Your task to perform on an android device: Go to Yahoo.com Image 0: 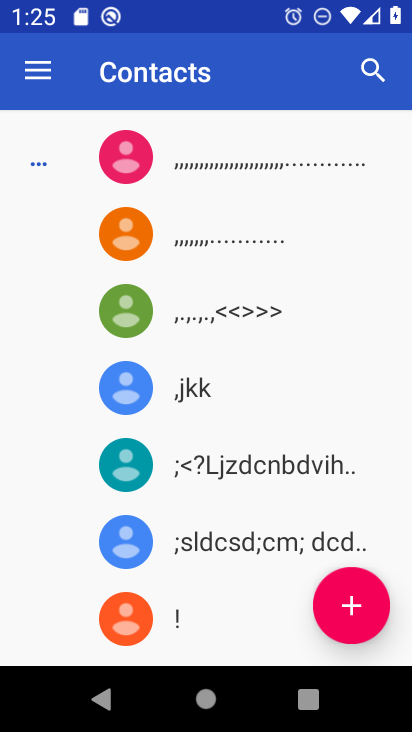
Step 0: press home button
Your task to perform on an android device: Go to Yahoo.com Image 1: 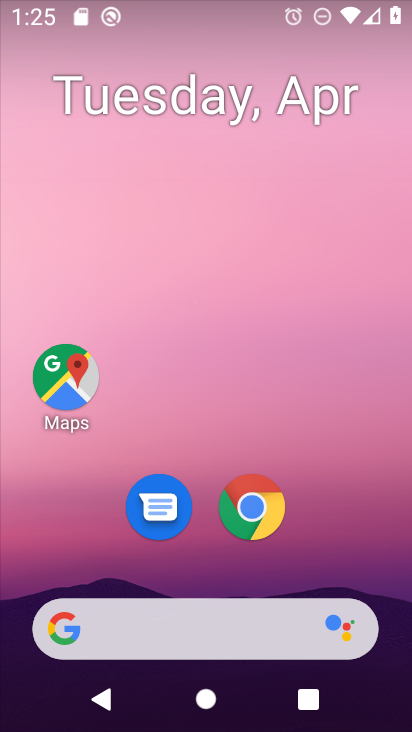
Step 1: drag from (363, 516) to (215, 141)
Your task to perform on an android device: Go to Yahoo.com Image 2: 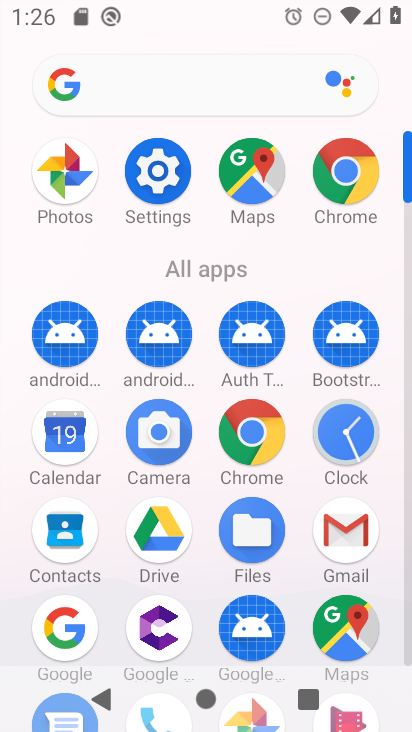
Step 2: click (325, 189)
Your task to perform on an android device: Go to Yahoo.com Image 3: 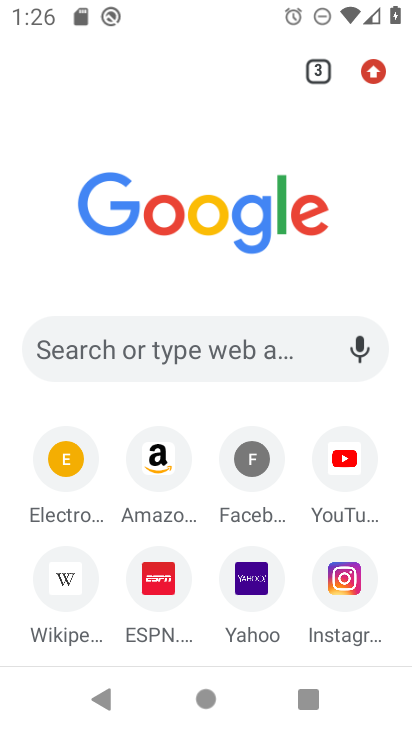
Step 3: click (189, 337)
Your task to perform on an android device: Go to Yahoo.com Image 4: 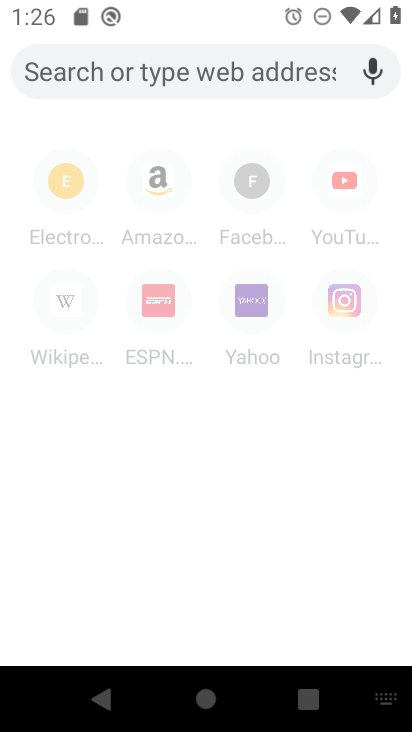
Step 4: type "yahoo.com"
Your task to perform on an android device: Go to Yahoo.com Image 5: 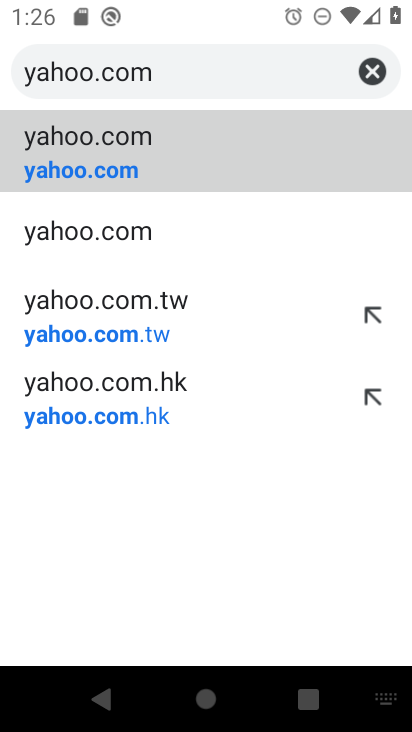
Step 5: click (278, 171)
Your task to perform on an android device: Go to Yahoo.com Image 6: 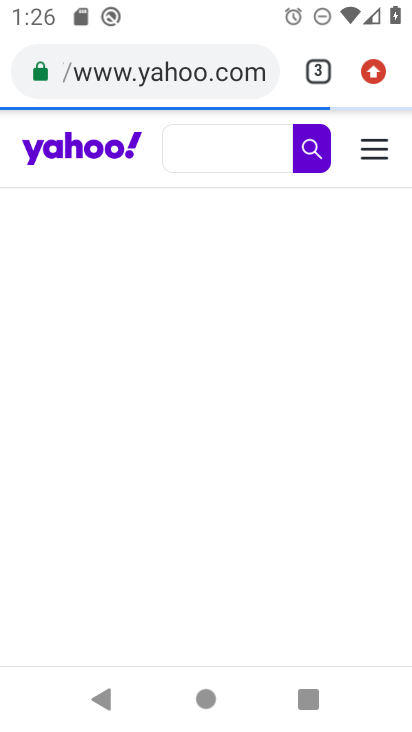
Step 6: task complete